Your task to perform on an android device: Open notification settings Image 0: 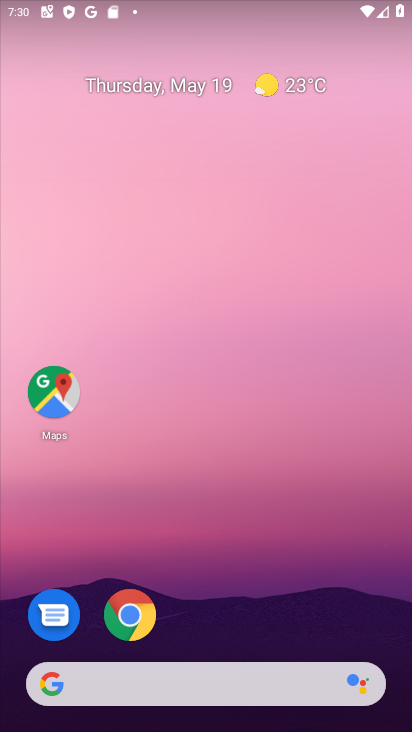
Step 0: drag from (380, 627) to (276, 123)
Your task to perform on an android device: Open notification settings Image 1: 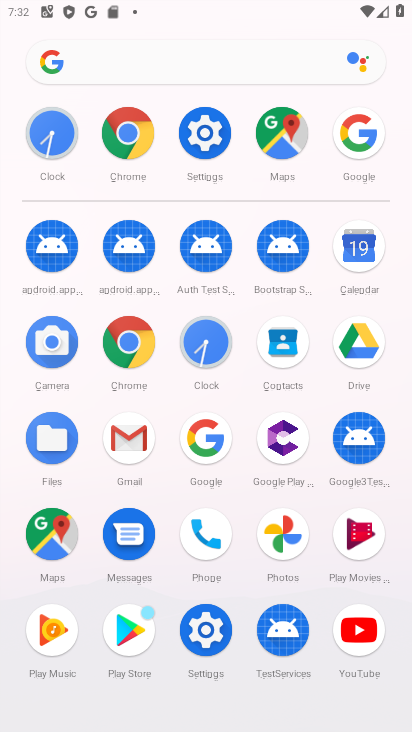
Step 1: click (187, 622)
Your task to perform on an android device: Open notification settings Image 2: 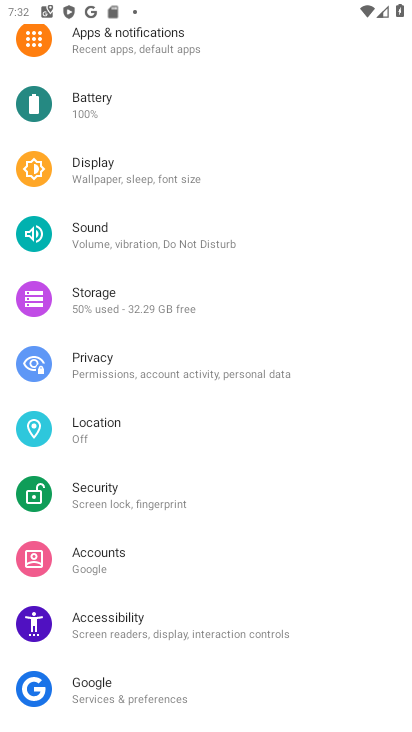
Step 2: click (176, 61)
Your task to perform on an android device: Open notification settings Image 3: 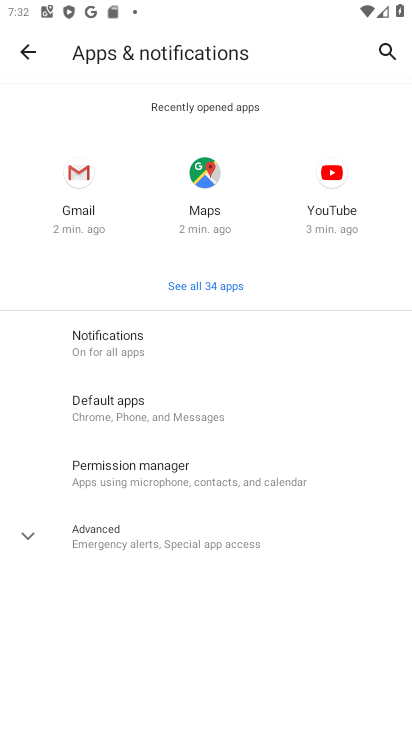
Step 3: click (175, 343)
Your task to perform on an android device: Open notification settings Image 4: 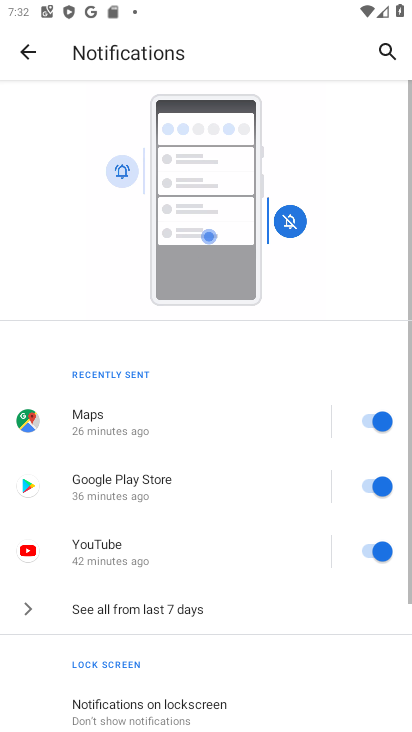
Step 4: task complete